Your task to perform on an android device: allow cookies in the chrome app Image 0: 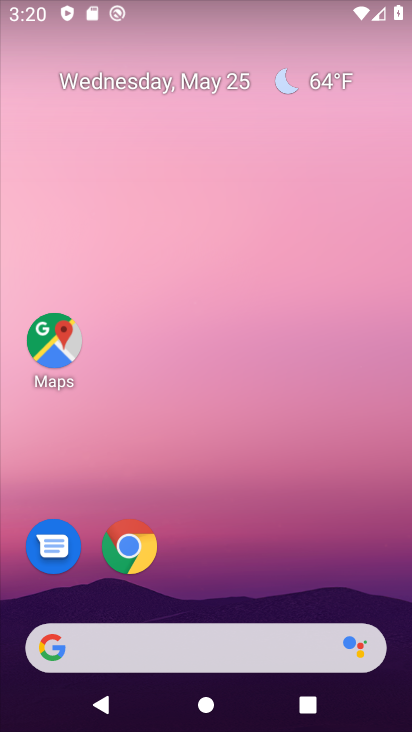
Step 0: click (126, 553)
Your task to perform on an android device: allow cookies in the chrome app Image 1: 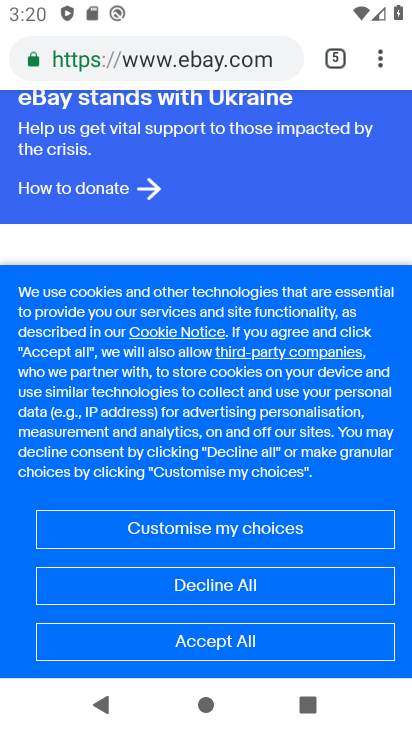
Step 1: click (386, 66)
Your task to perform on an android device: allow cookies in the chrome app Image 2: 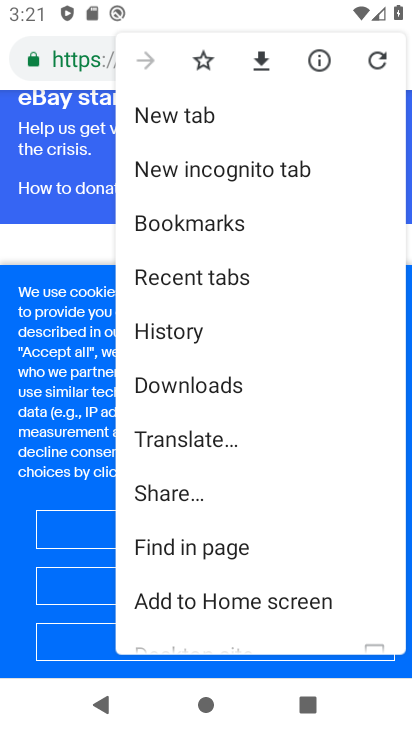
Step 2: drag from (336, 590) to (329, 294)
Your task to perform on an android device: allow cookies in the chrome app Image 3: 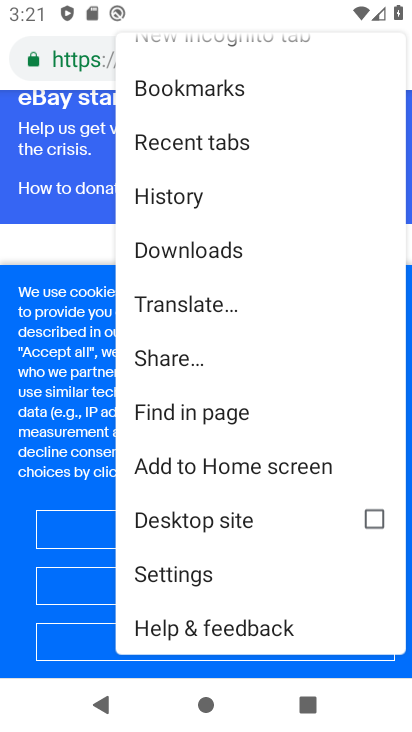
Step 3: click (164, 562)
Your task to perform on an android device: allow cookies in the chrome app Image 4: 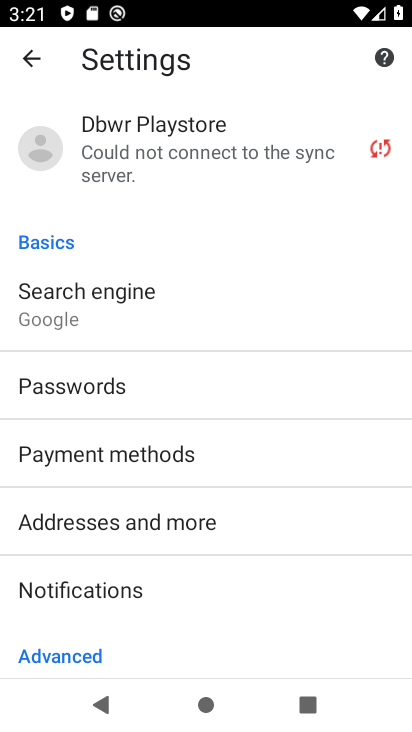
Step 4: drag from (194, 612) to (184, 200)
Your task to perform on an android device: allow cookies in the chrome app Image 5: 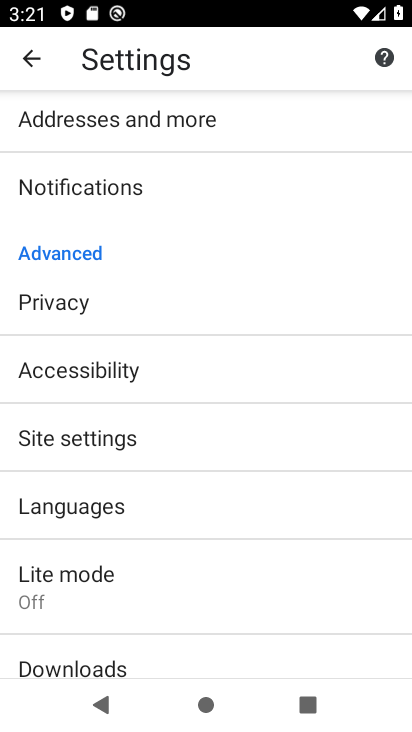
Step 5: click (105, 434)
Your task to perform on an android device: allow cookies in the chrome app Image 6: 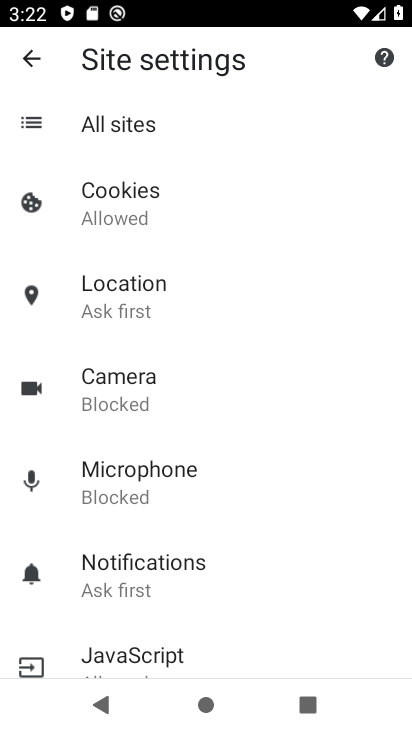
Step 6: click (139, 215)
Your task to perform on an android device: allow cookies in the chrome app Image 7: 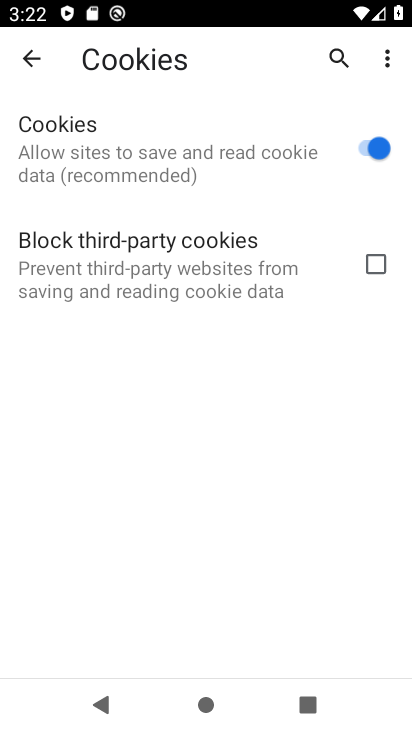
Step 7: task complete